Your task to perform on an android device: check out phone information Image 0: 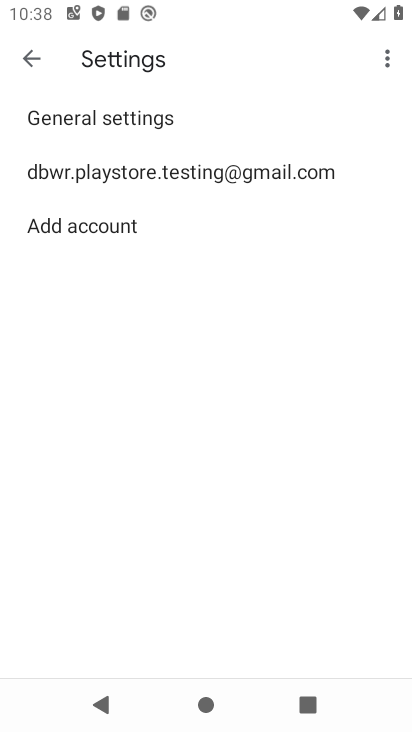
Step 0: press home button
Your task to perform on an android device: check out phone information Image 1: 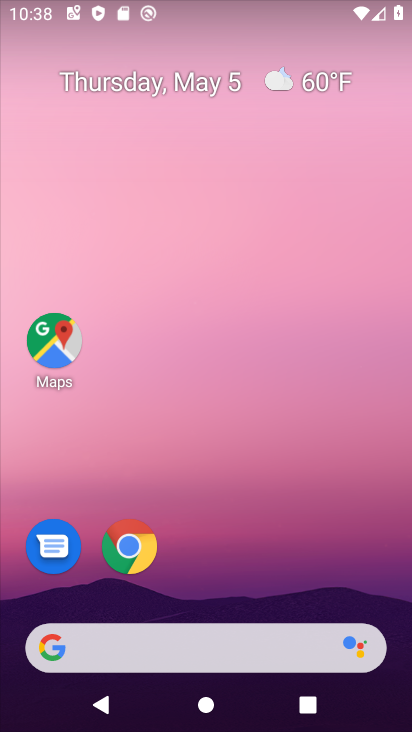
Step 1: drag from (250, 597) to (297, 92)
Your task to perform on an android device: check out phone information Image 2: 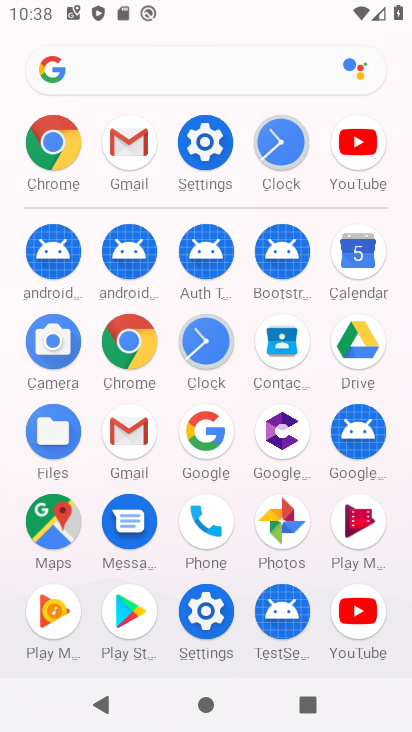
Step 2: click (212, 621)
Your task to perform on an android device: check out phone information Image 3: 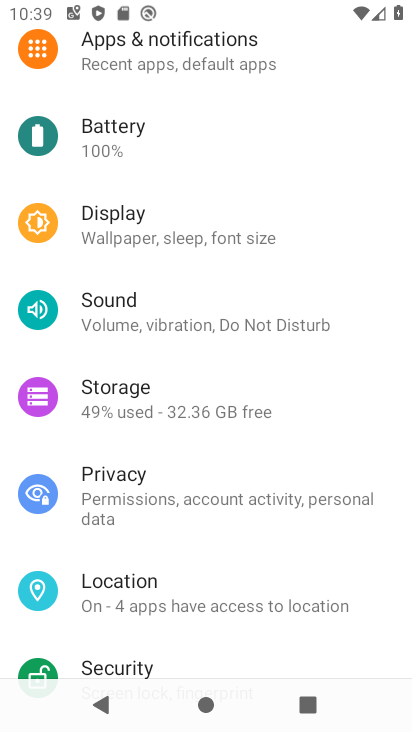
Step 3: drag from (209, 620) to (223, 378)
Your task to perform on an android device: check out phone information Image 4: 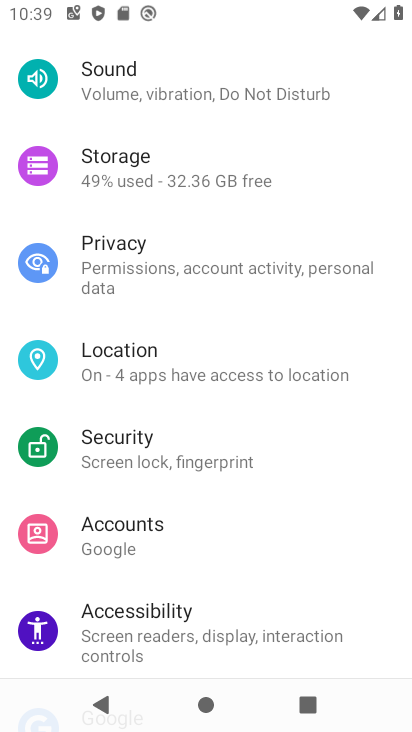
Step 4: drag from (135, 650) to (162, 431)
Your task to perform on an android device: check out phone information Image 5: 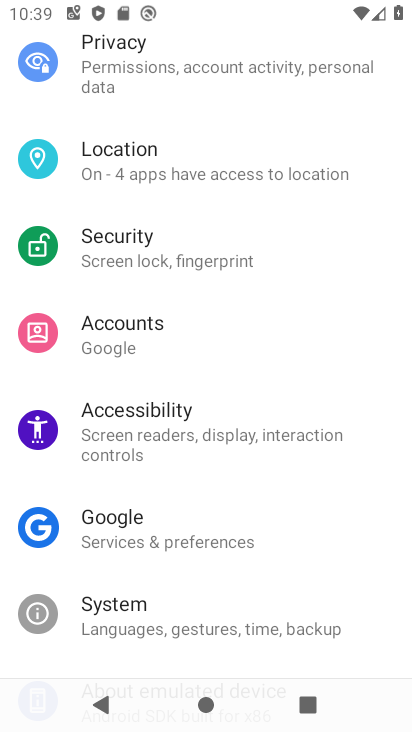
Step 5: drag from (157, 589) to (183, 439)
Your task to perform on an android device: check out phone information Image 6: 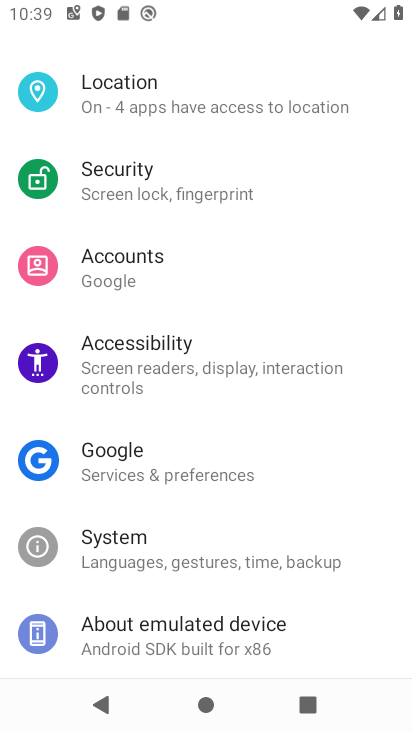
Step 6: click (137, 644)
Your task to perform on an android device: check out phone information Image 7: 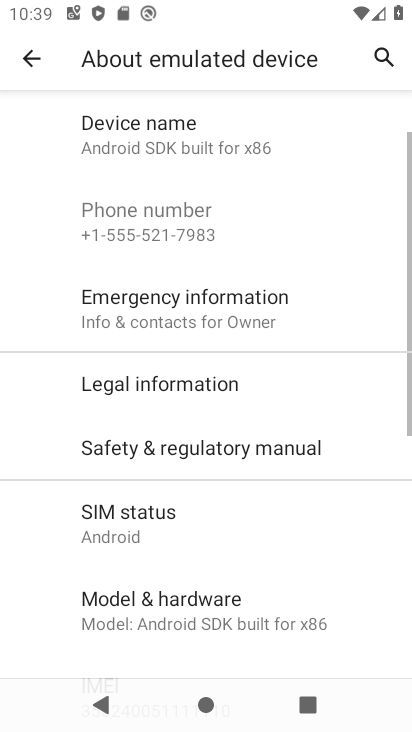
Step 7: task complete